Your task to perform on an android device: Show me popular games on the Play Store Image 0: 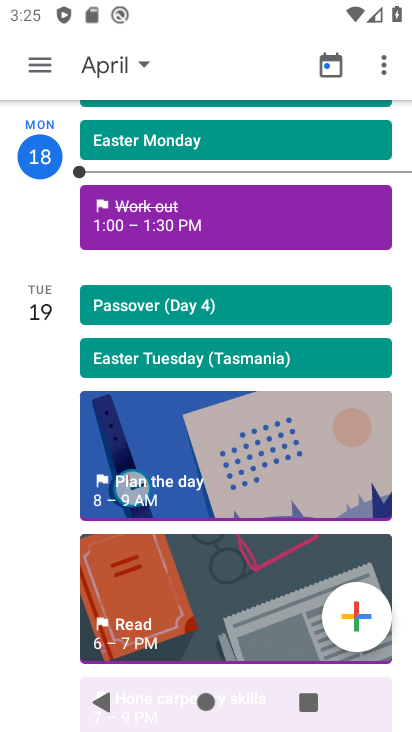
Step 0: press home button
Your task to perform on an android device: Show me popular games on the Play Store Image 1: 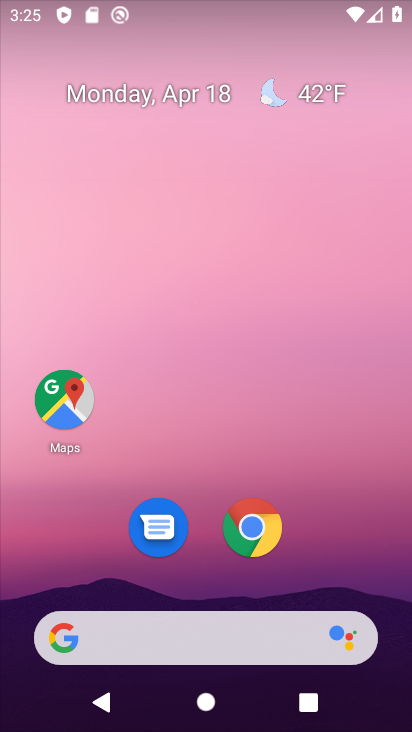
Step 1: drag from (388, 593) to (324, 114)
Your task to perform on an android device: Show me popular games on the Play Store Image 2: 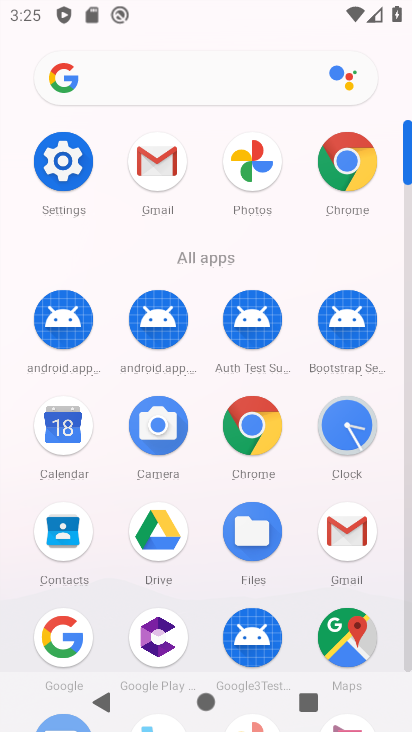
Step 2: click (411, 656)
Your task to perform on an android device: Show me popular games on the Play Store Image 3: 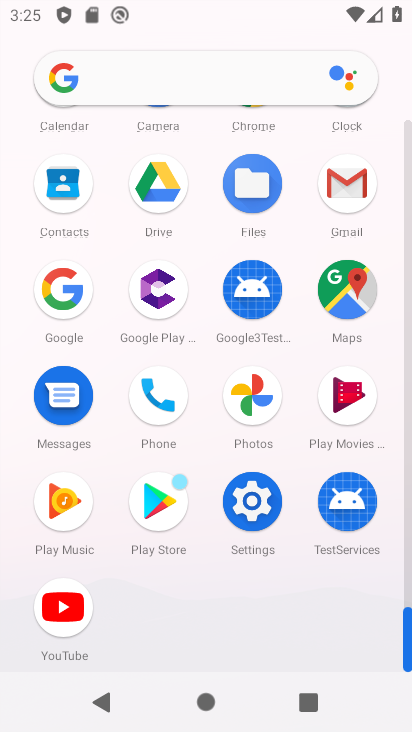
Step 3: click (159, 491)
Your task to perform on an android device: Show me popular games on the Play Store Image 4: 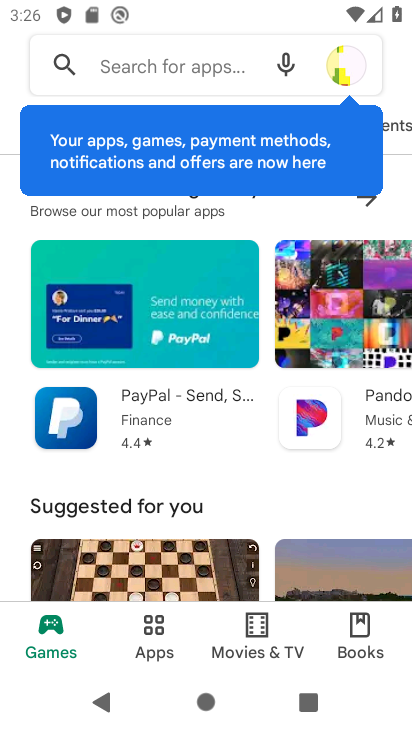
Step 4: drag from (262, 543) to (254, 285)
Your task to perform on an android device: Show me popular games on the Play Store Image 5: 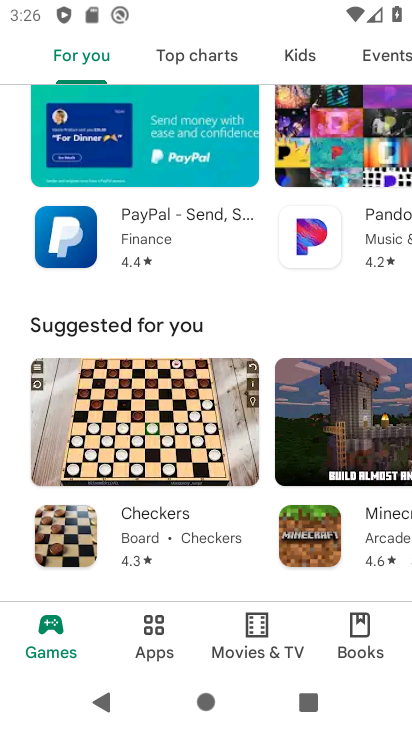
Step 5: drag from (258, 558) to (244, 139)
Your task to perform on an android device: Show me popular games on the Play Store Image 6: 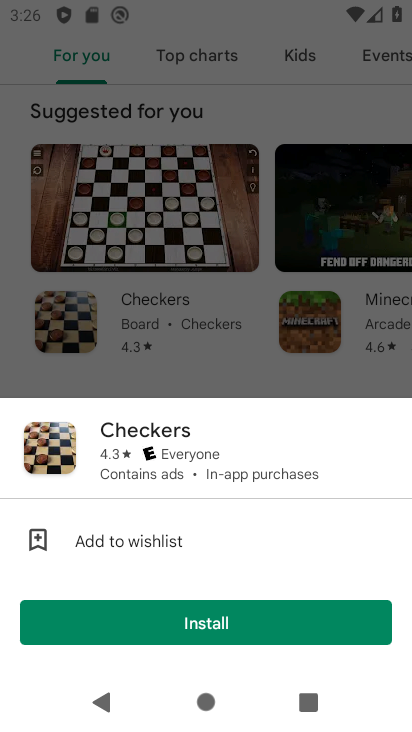
Step 6: click (251, 356)
Your task to perform on an android device: Show me popular games on the Play Store Image 7: 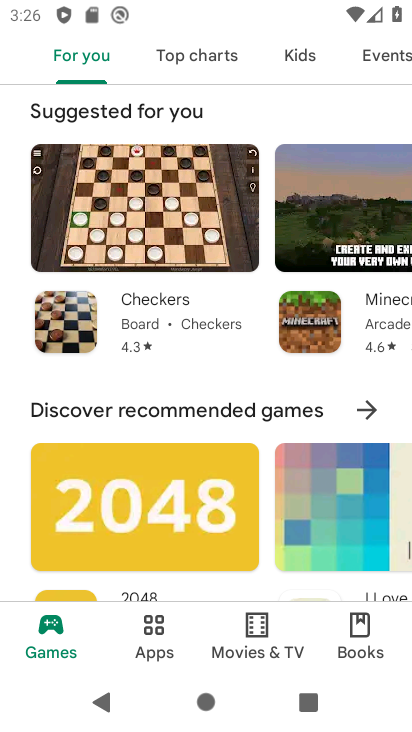
Step 7: drag from (258, 468) to (233, 161)
Your task to perform on an android device: Show me popular games on the Play Store Image 8: 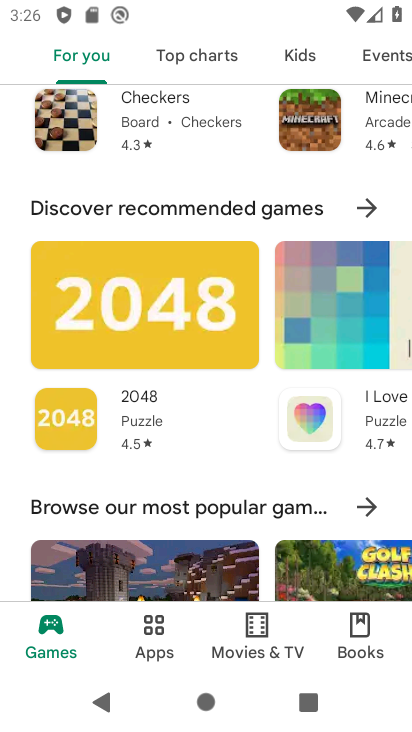
Step 8: click (372, 503)
Your task to perform on an android device: Show me popular games on the Play Store Image 9: 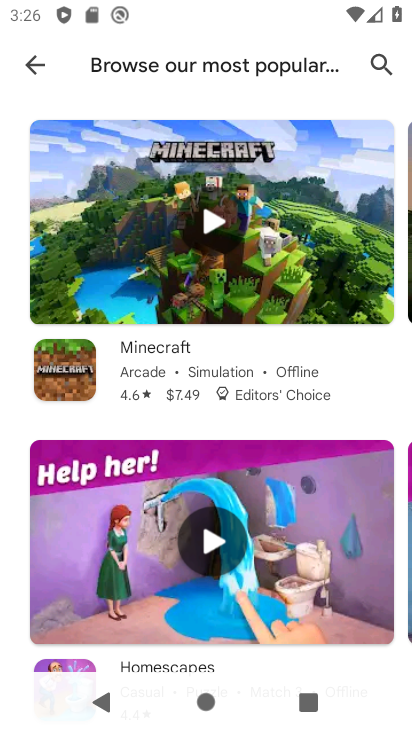
Step 9: task complete